Your task to perform on an android device: create a new album in the google photos Image 0: 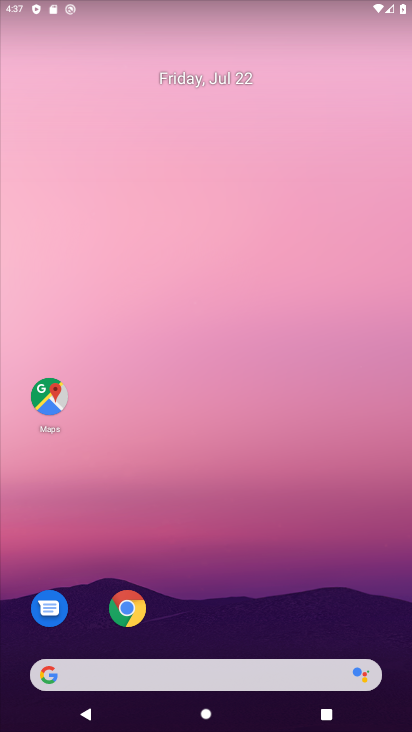
Step 0: drag from (222, 631) to (210, 281)
Your task to perform on an android device: create a new album in the google photos Image 1: 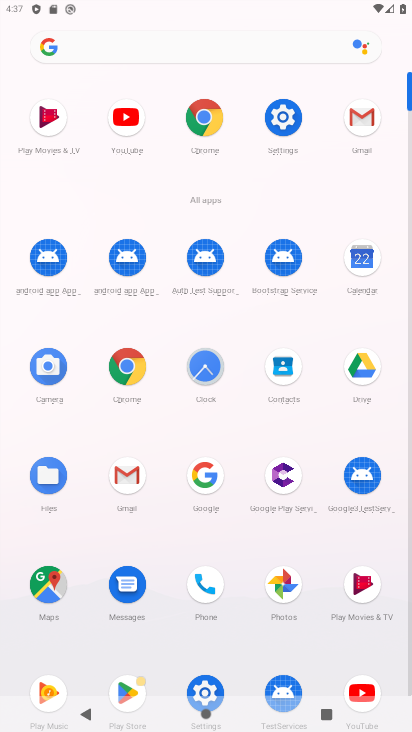
Step 1: click (276, 610)
Your task to perform on an android device: create a new album in the google photos Image 2: 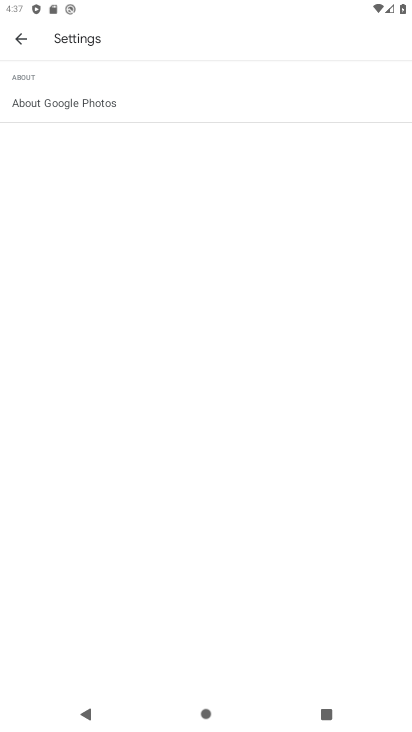
Step 2: click (24, 53)
Your task to perform on an android device: create a new album in the google photos Image 3: 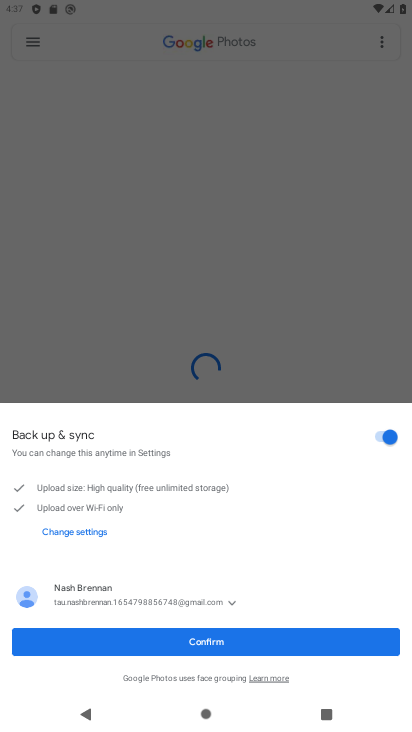
Step 3: click (188, 632)
Your task to perform on an android device: create a new album in the google photos Image 4: 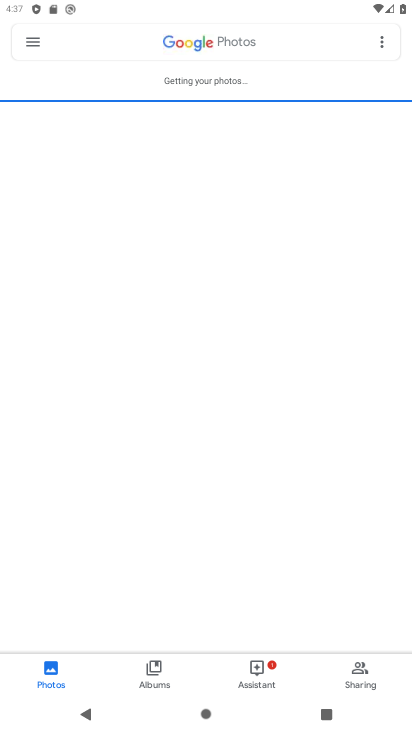
Step 4: task complete